Your task to perform on an android device: find photos in the google photos app Image 0: 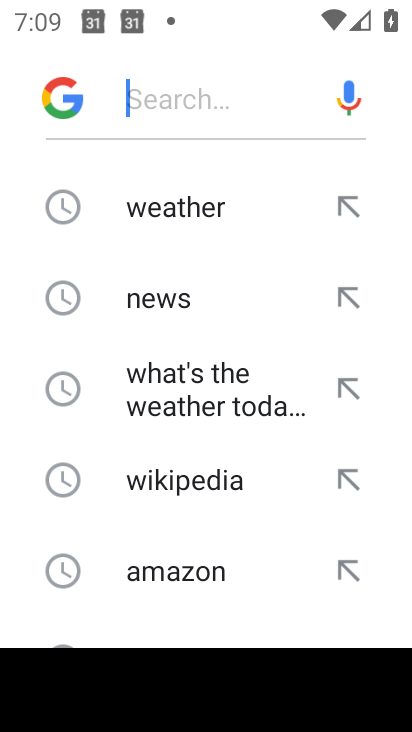
Step 0: press home button
Your task to perform on an android device: find photos in the google photos app Image 1: 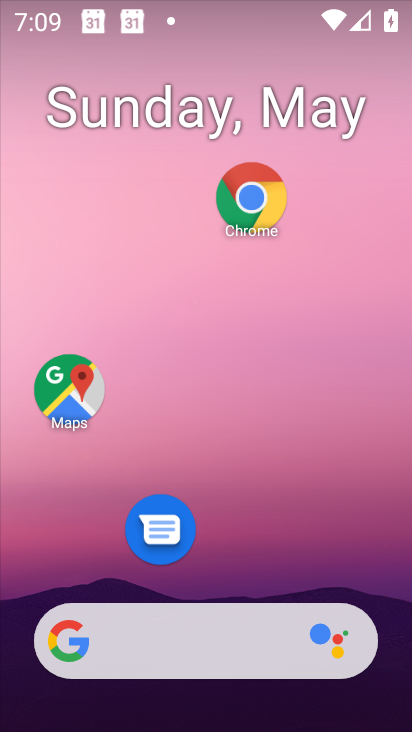
Step 1: drag from (198, 579) to (215, 303)
Your task to perform on an android device: find photos in the google photos app Image 2: 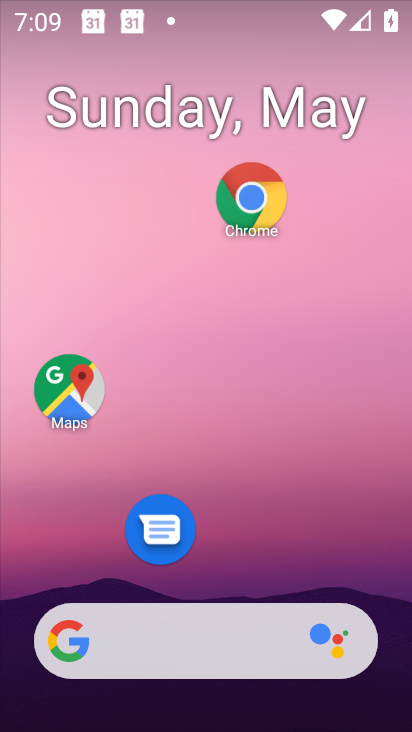
Step 2: drag from (202, 574) to (218, 285)
Your task to perform on an android device: find photos in the google photos app Image 3: 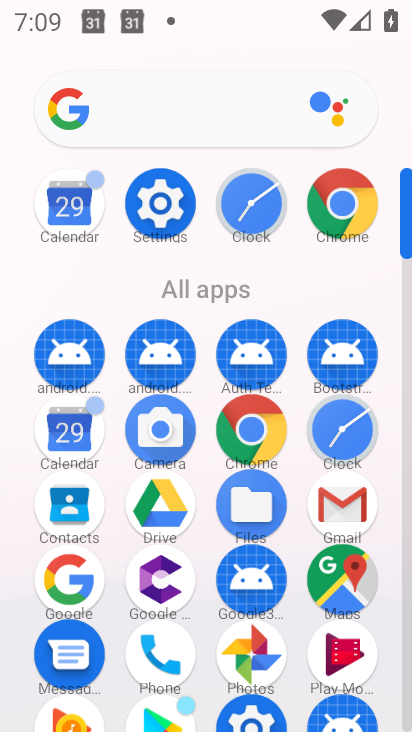
Step 3: click (256, 661)
Your task to perform on an android device: find photos in the google photos app Image 4: 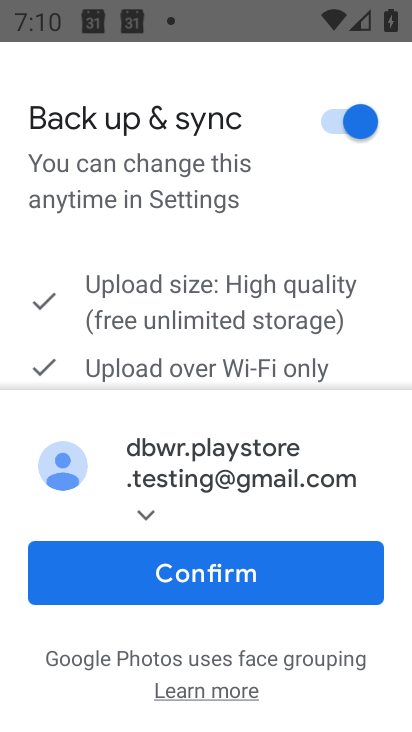
Step 4: click (278, 556)
Your task to perform on an android device: find photos in the google photos app Image 5: 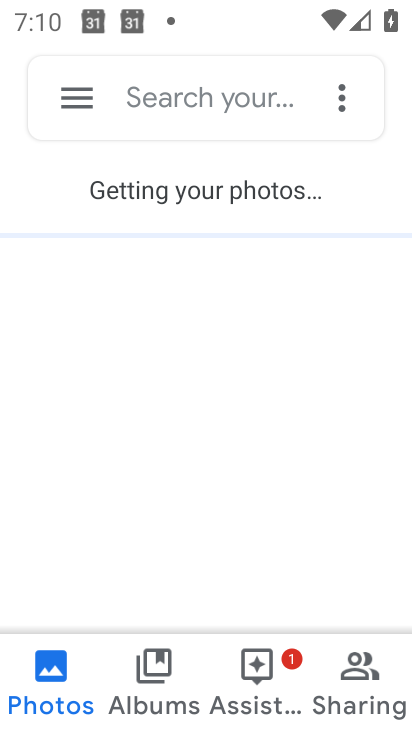
Step 5: task complete